Your task to perform on an android device: search for starred emails in the gmail app Image 0: 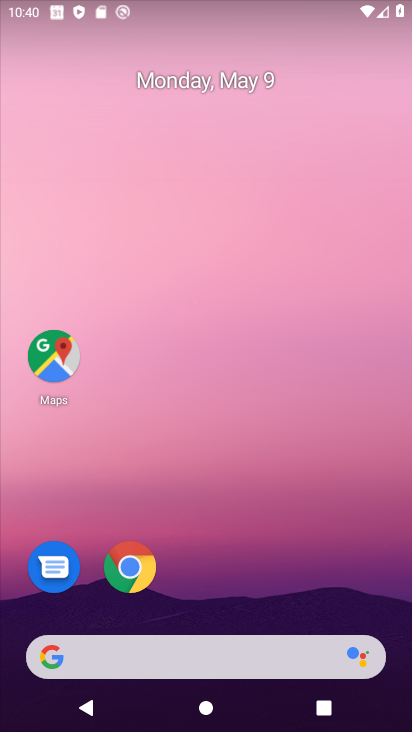
Step 0: drag from (365, 597) to (259, 79)
Your task to perform on an android device: search for starred emails in the gmail app Image 1: 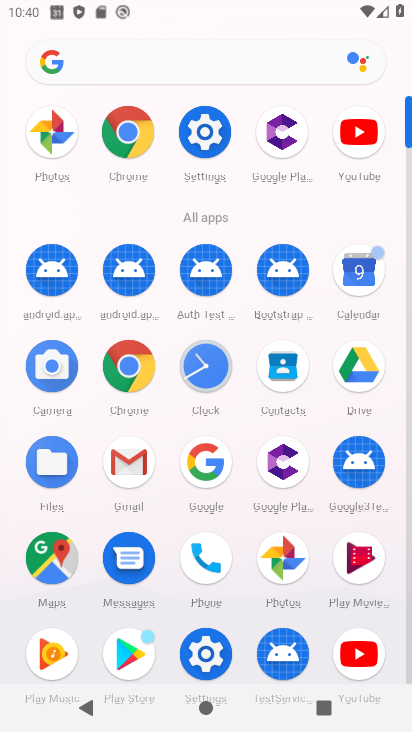
Step 1: click (137, 474)
Your task to perform on an android device: search for starred emails in the gmail app Image 2: 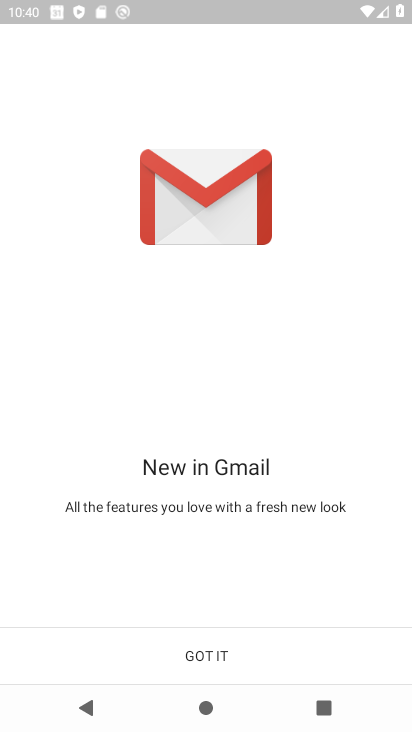
Step 2: click (253, 669)
Your task to perform on an android device: search for starred emails in the gmail app Image 3: 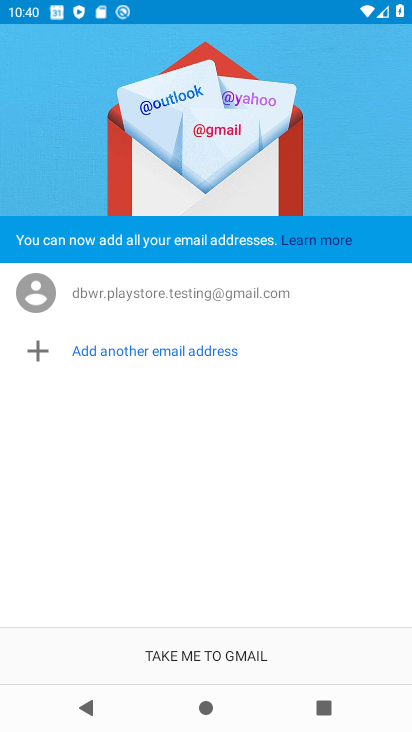
Step 3: click (253, 669)
Your task to perform on an android device: search for starred emails in the gmail app Image 4: 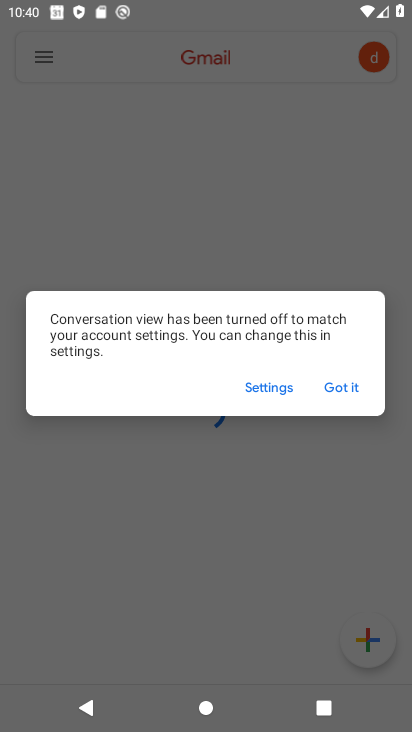
Step 4: click (347, 384)
Your task to perform on an android device: search for starred emails in the gmail app Image 5: 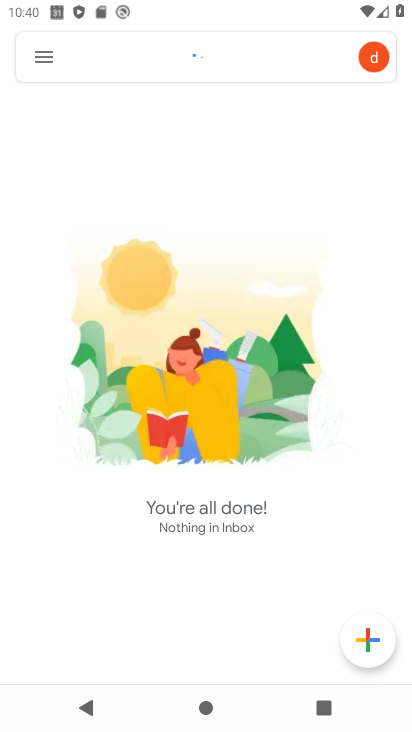
Step 5: click (50, 63)
Your task to perform on an android device: search for starred emails in the gmail app Image 6: 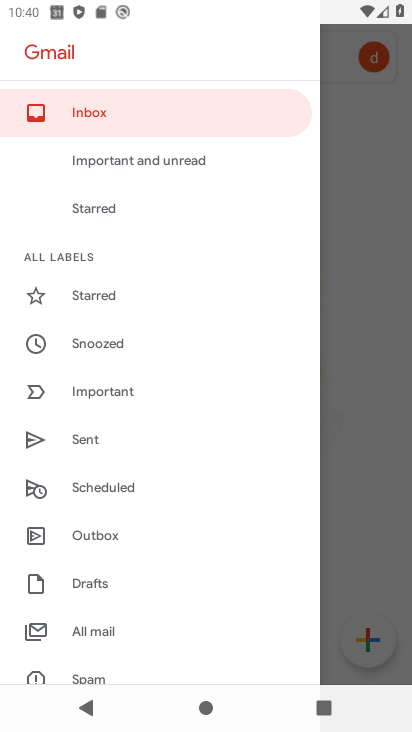
Step 6: click (114, 303)
Your task to perform on an android device: search for starred emails in the gmail app Image 7: 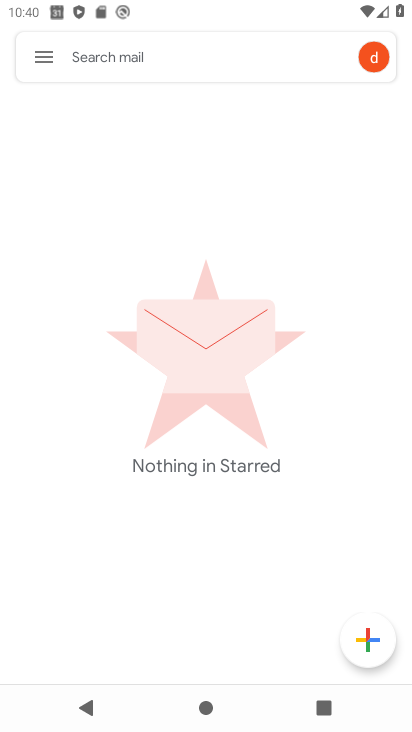
Step 7: task complete